Your task to perform on an android device: Open Google Chrome and open the bookmarks view Image 0: 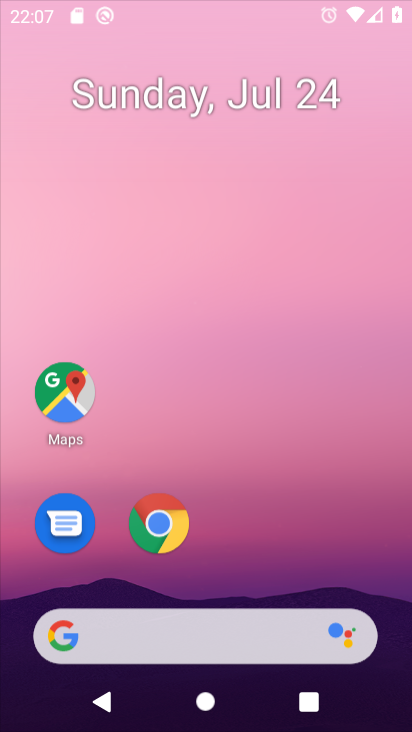
Step 0: drag from (271, 514) to (285, 91)
Your task to perform on an android device: Open Google Chrome and open the bookmarks view Image 1: 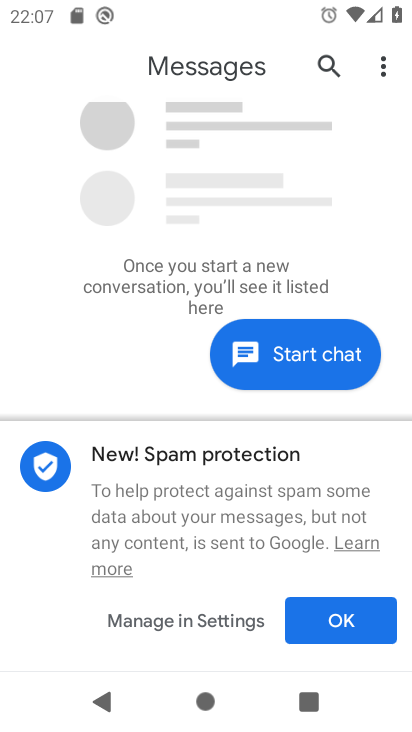
Step 1: press home button
Your task to perform on an android device: Open Google Chrome and open the bookmarks view Image 2: 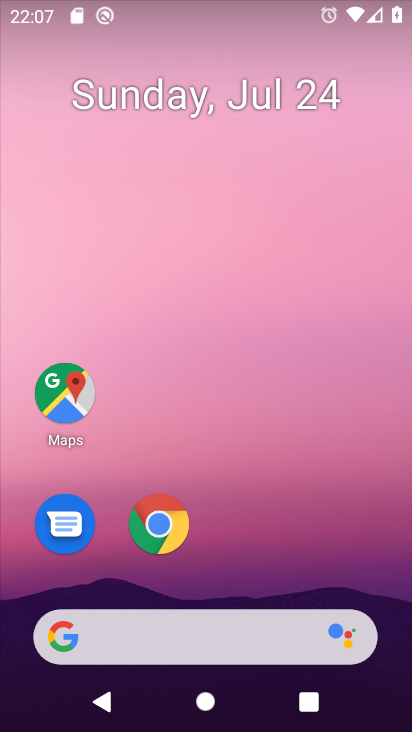
Step 2: click (166, 523)
Your task to perform on an android device: Open Google Chrome and open the bookmarks view Image 3: 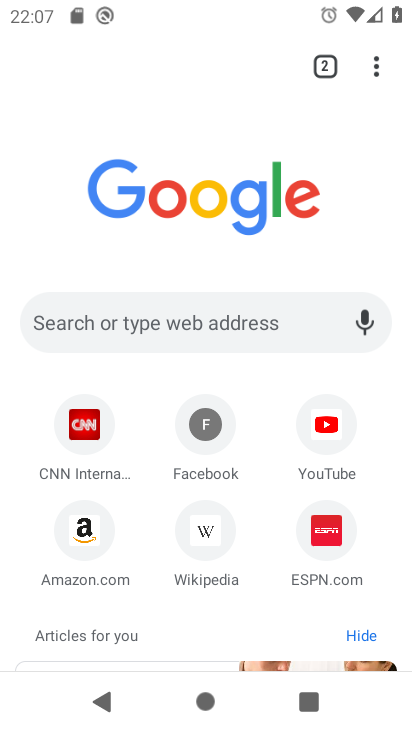
Step 3: click (377, 74)
Your task to perform on an android device: Open Google Chrome and open the bookmarks view Image 4: 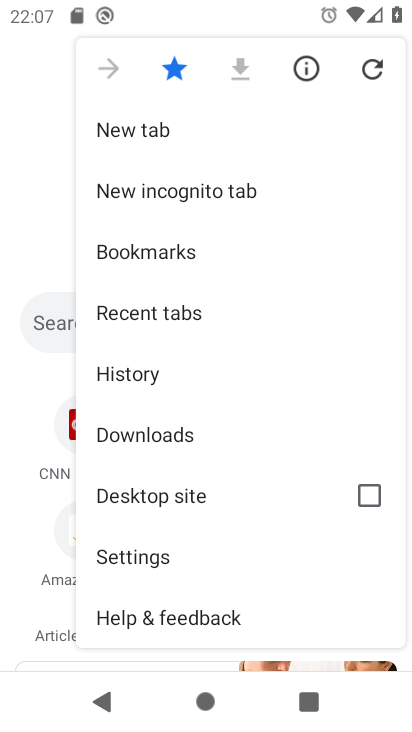
Step 4: click (180, 260)
Your task to perform on an android device: Open Google Chrome and open the bookmarks view Image 5: 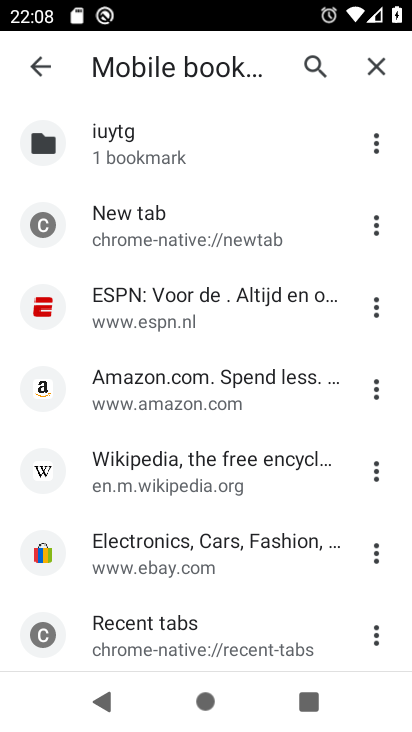
Step 5: task complete